Your task to perform on an android device: Open Amazon Image 0: 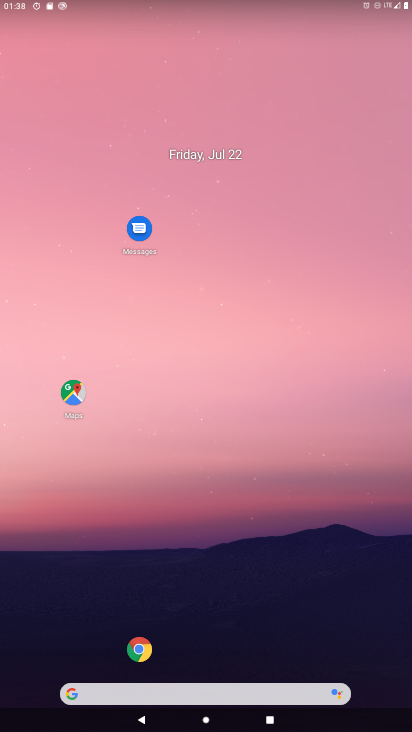
Step 0: drag from (23, 689) to (233, 110)
Your task to perform on an android device: Open Amazon Image 1: 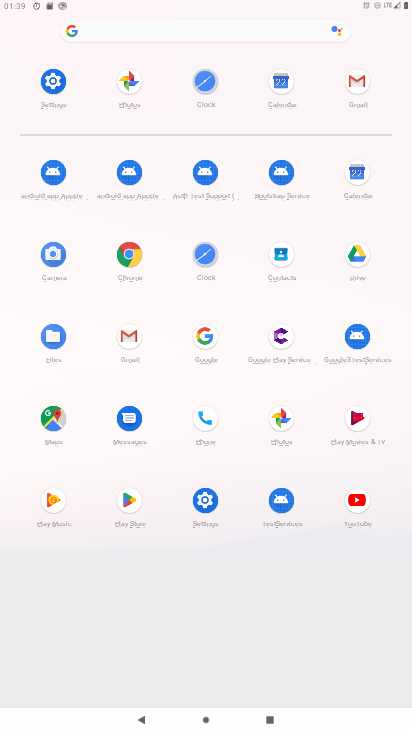
Step 1: click (106, 35)
Your task to perform on an android device: Open Amazon Image 2: 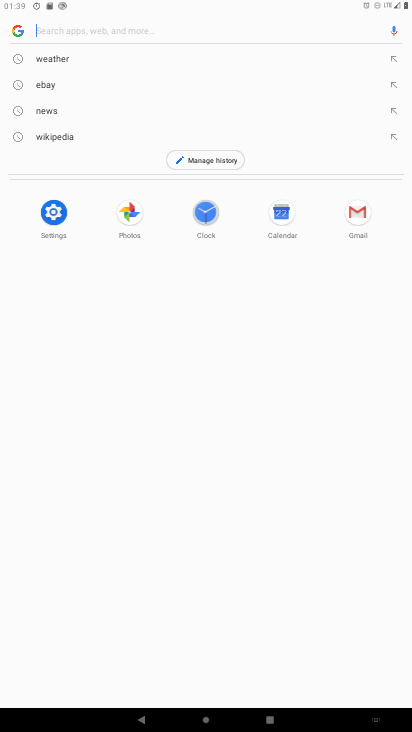
Step 2: type "Amazon"
Your task to perform on an android device: Open Amazon Image 3: 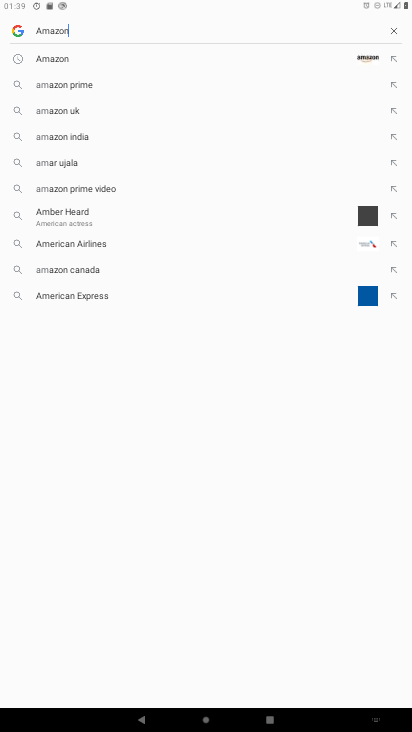
Step 3: type ""
Your task to perform on an android device: Open Amazon Image 4: 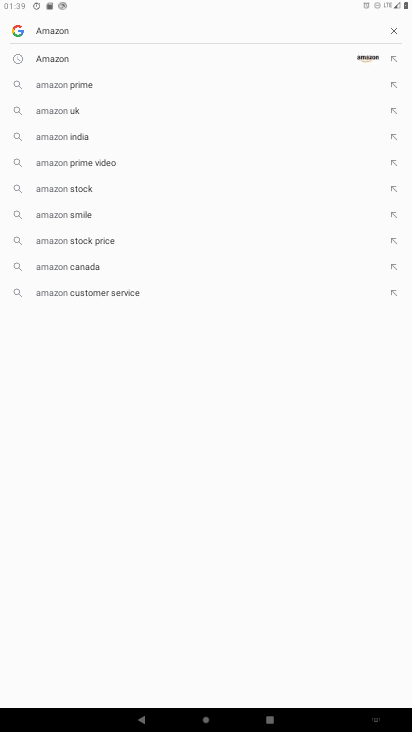
Step 4: click (66, 60)
Your task to perform on an android device: Open Amazon Image 5: 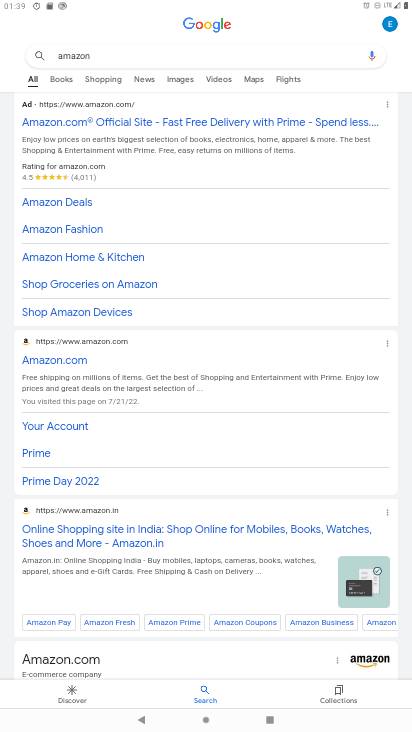
Step 5: task complete